Your task to perform on an android device: Open the calendar app, open the side menu, and click the "Day" option Image 0: 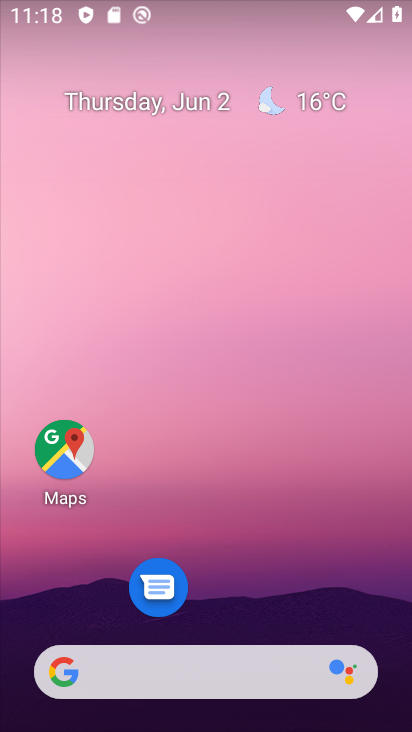
Step 0: drag from (209, 635) to (47, 0)
Your task to perform on an android device: Open the calendar app, open the side menu, and click the "Day" option Image 1: 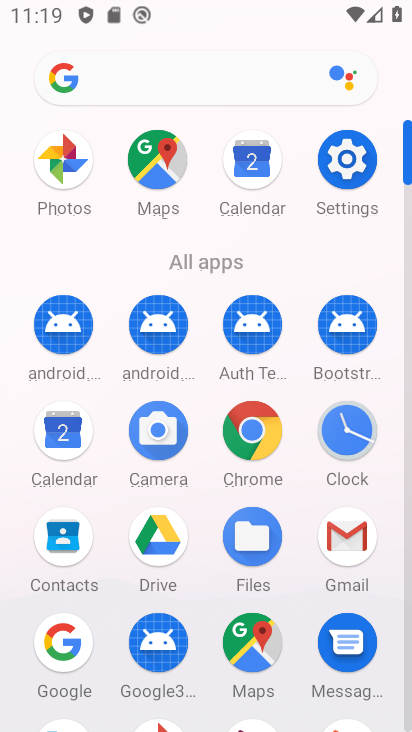
Step 1: click (81, 438)
Your task to perform on an android device: Open the calendar app, open the side menu, and click the "Day" option Image 2: 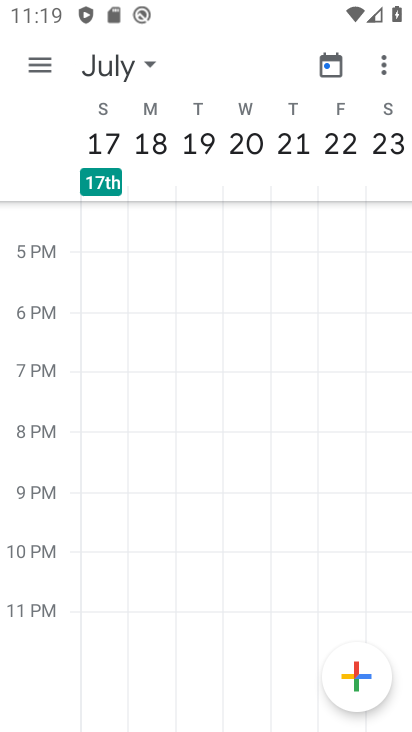
Step 2: click (39, 44)
Your task to perform on an android device: Open the calendar app, open the side menu, and click the "Day" option Image 3: 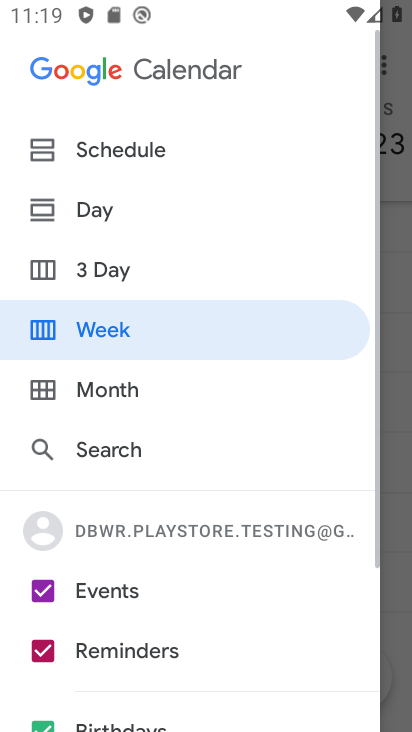
Step 3: click (83, 204)
Your task to perform on an android device: Open the calendar app, open the side menu, and click the "Day" option Image 4: 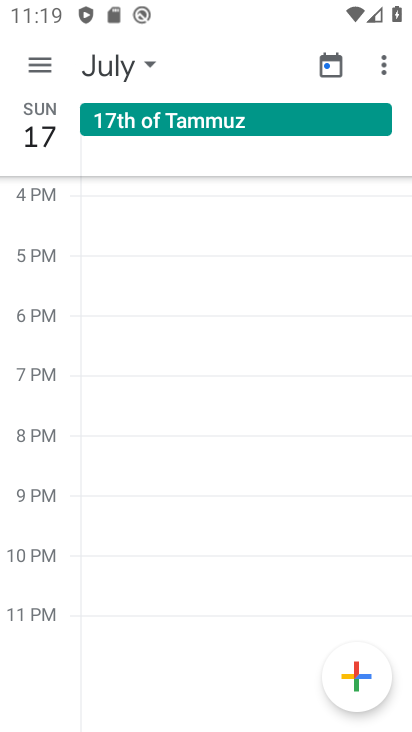
Step 4: task complete